Your task to perform on an android device: Show me popular videos on Youtube Image 0: 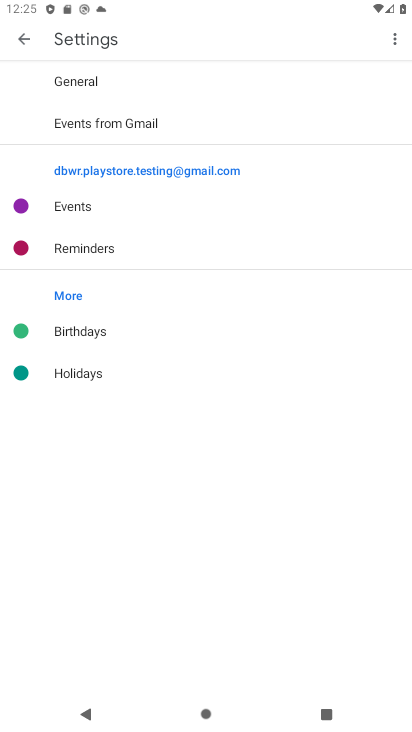
Step 0: press home button
Your task to perform on an android device: Show me popular videos on Youtube Image 1: 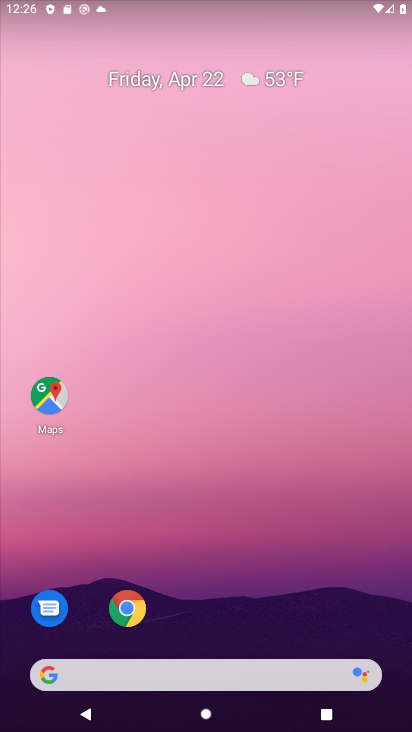
Step 1: drag from (264, 527) to (10, 27)
Your task to perform on an android device: Show me popular videos on Youtube Image 2: 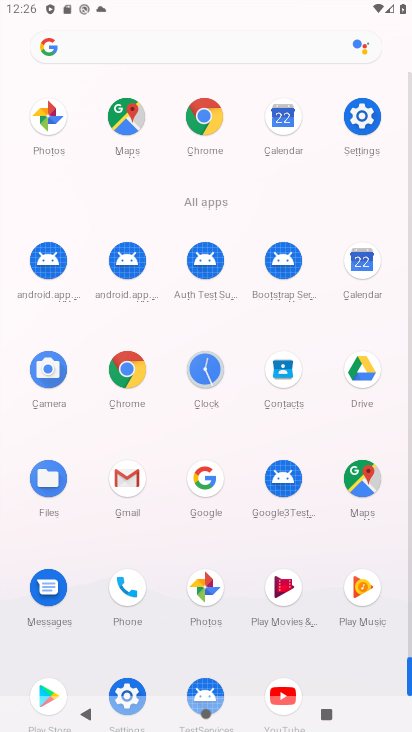
Step 2: drag from (163, 338) to (151, 0)
Your task to perform on an android device: Show me popular videos on Youtube Image 3: 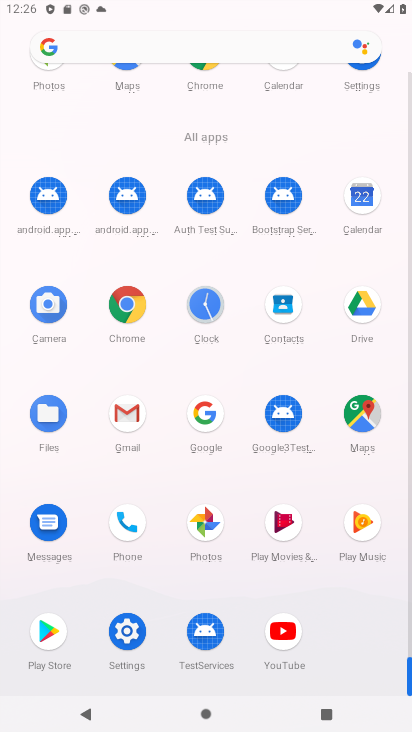
Step 3: click (288, 626)
Your task to perform on an android device: Show me popular videos on Youtube Image 4: 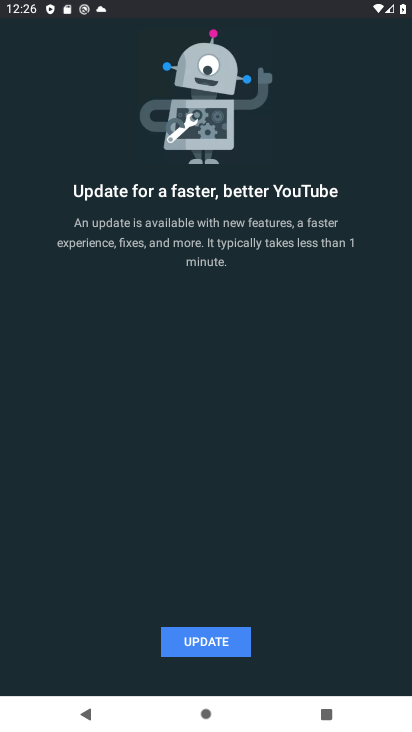
Step 4: click (222, 645)
Your task to perform on an android device: Show me popular videos on Youtube Image 5: 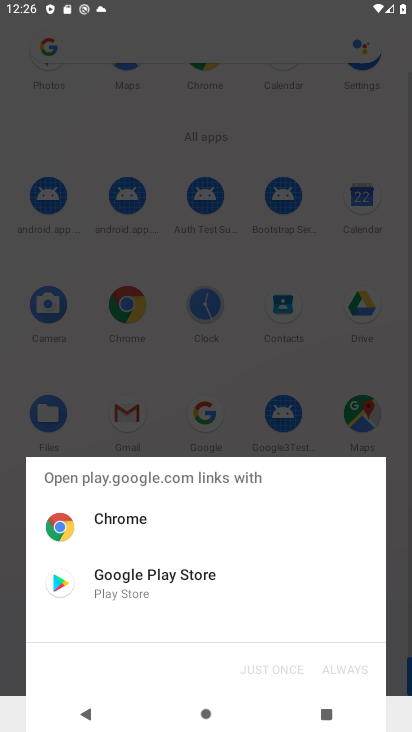
Step 5: click (146, 576)
Your task to perform on an android device: Show me popular videos on Youtube Image 6: 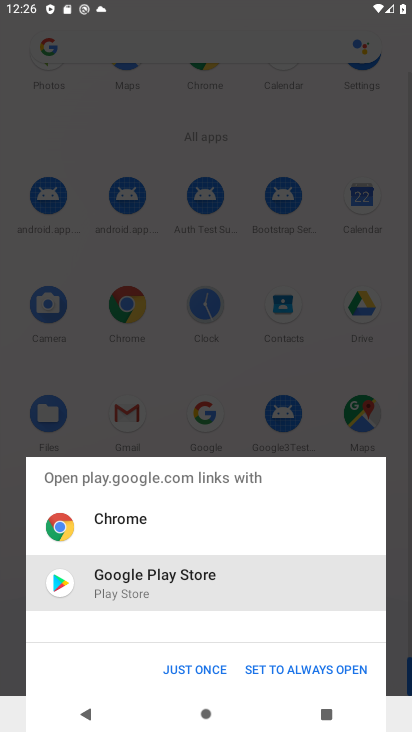
Step 6: click (207, 661)
Your task to perform on an android device: Show me popular videos on Youtube Image 7: 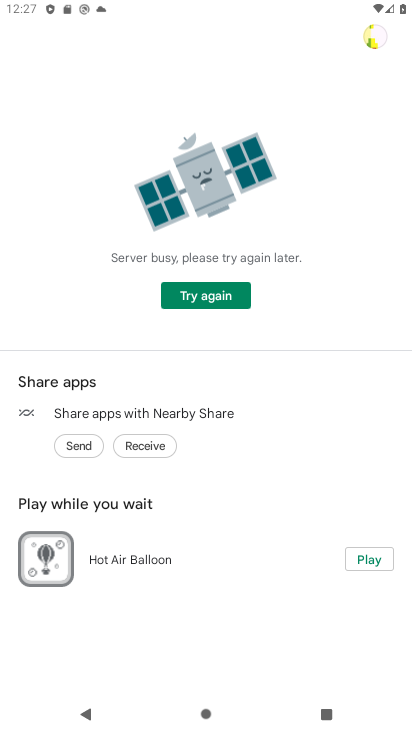
Step 7: click (185, 298)
Your task to perform on an android device: Show me popular videos on Youtube Image 8: 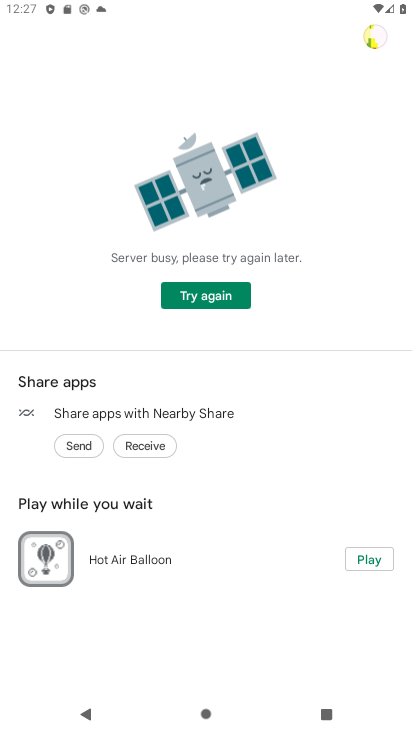
Step 8: task complete